Your task to perform on an android device: open a bookmark in the chrome app Image 0: 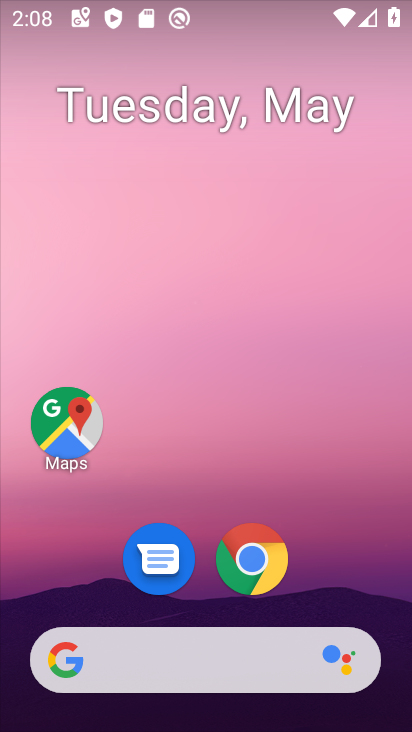
Step 0: press home button
Your task to perform on an android device: open a bookmark in the chrome app Image 1: 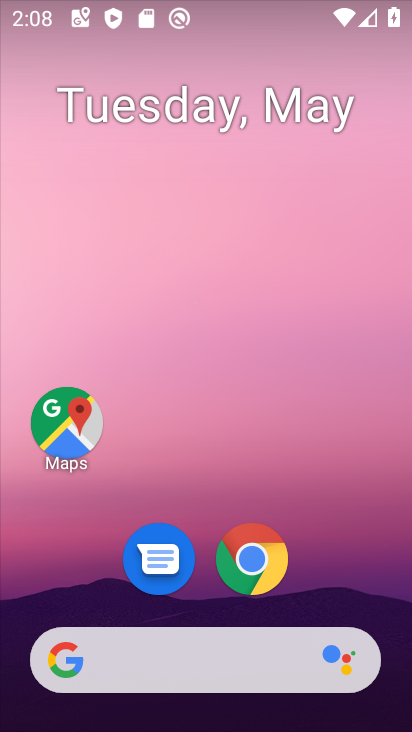
Step 1: click (336, 149)
Your task to perform on an android device: open a bookmark in the chrome app Image 2: 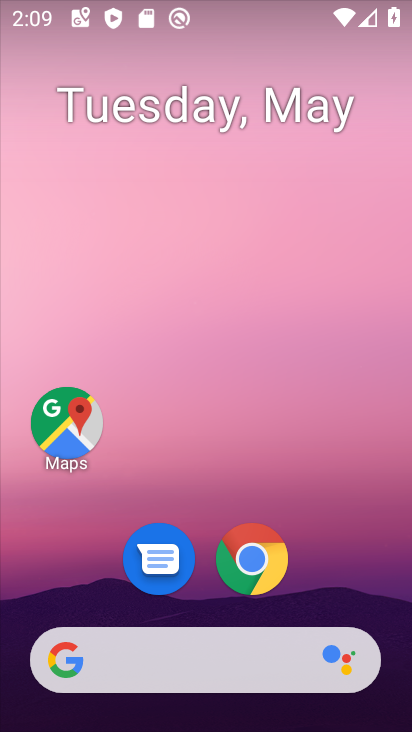
Step 2: click (241, 567)
Your task to perform on an android device: open a bookmark in the chrome app Image 3: 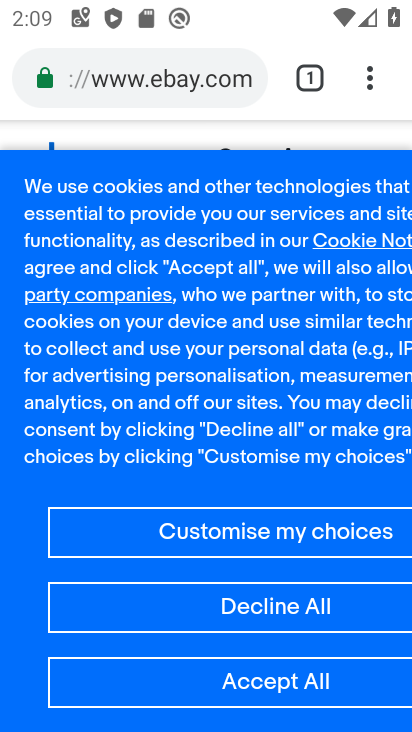
Step 3: task complete